Your task to perform on an android device: See recent photos Image 0: 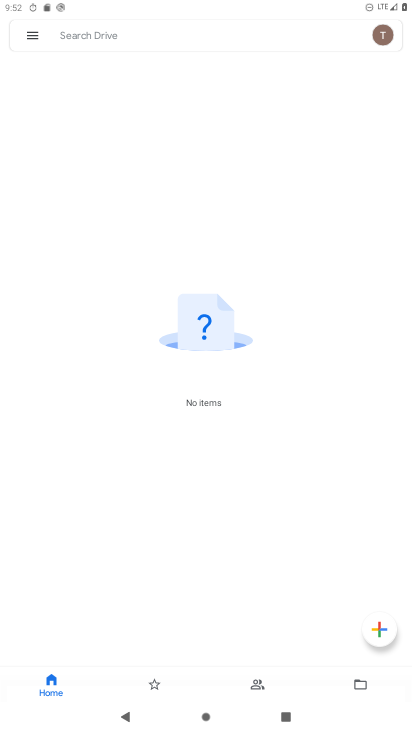
Step 0: press home button
Your task to perform on an android device: See recent photos Image 1: 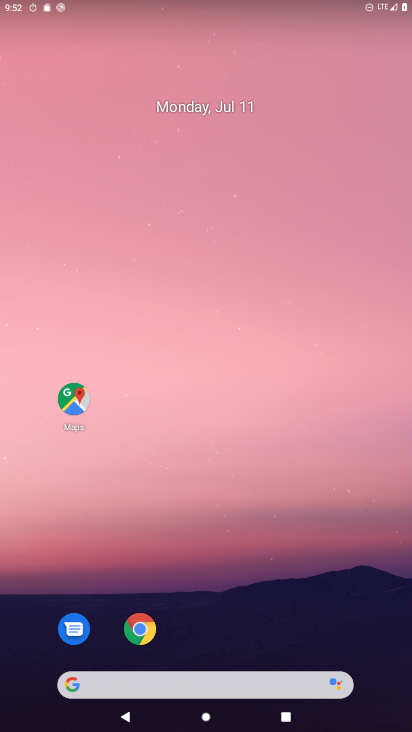
Step 1: drag from (230, 631) to (243, 37)
Your task to perform on an android device: See recent photos Image 2: 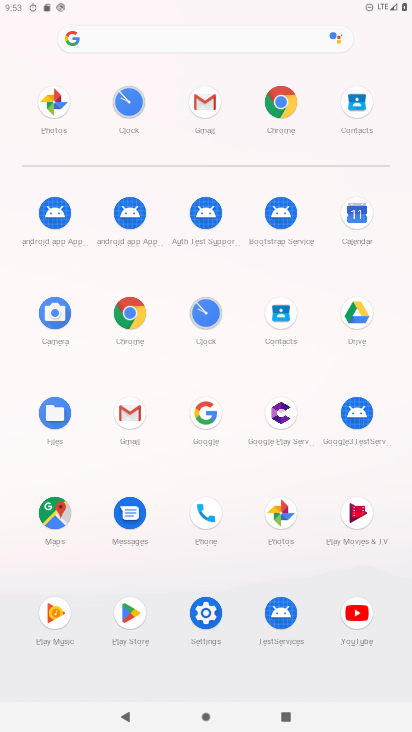
Step 2: click (65, 115)
Your task to perform on an android device: See recent photos Image 3: 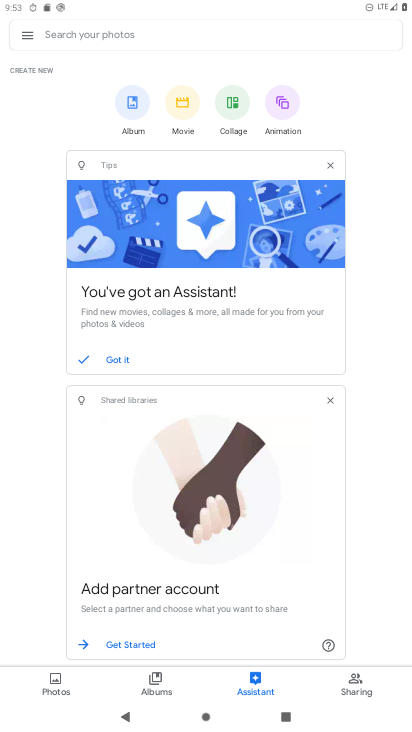
Step 3: click (53, 682)
Your task to perform on an android device: See recent photos Image 4: 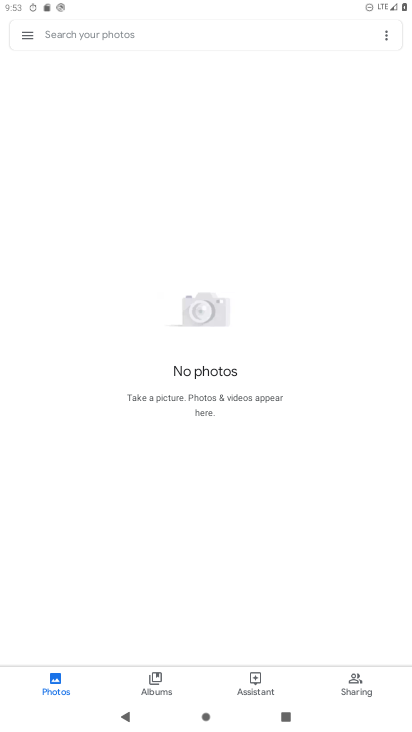
Step 4: task complete